Your task to perform on an android device: toggle wifi Image 0: 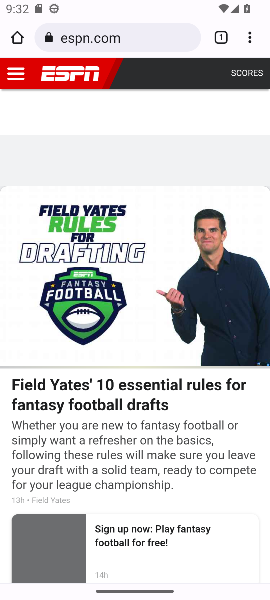
Step 0: drag from (127, 7) to (205, 422)
Your task to perform on an android device: toggle wifi Image 1: 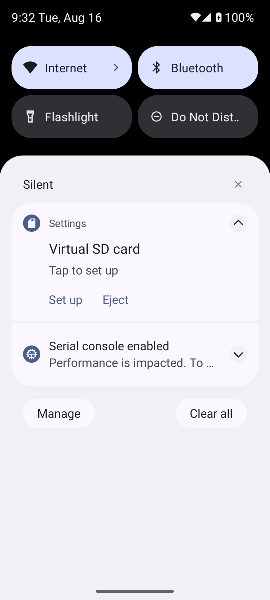
Step 1: click (58, 60)
Your task to perform on an android device: toggle wifi Image 2: 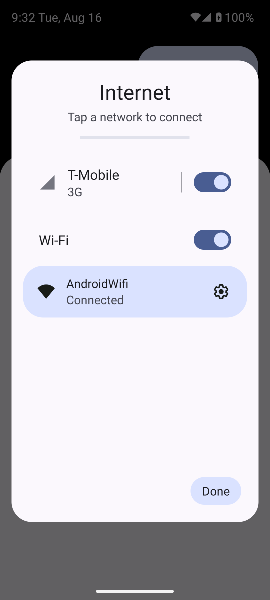
Step 2: click (222, 236)
Your task to perform on an android device: toggle wifi Image 3: 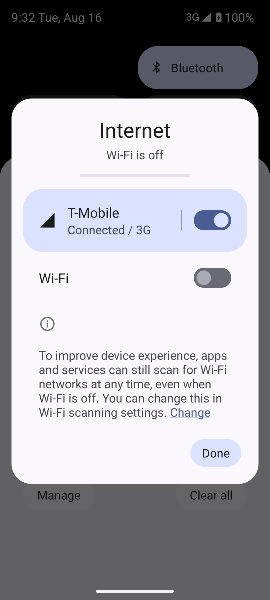
Step 3: task complete